Your task to perform on an android device: uninstall "Instagram" Image 0: 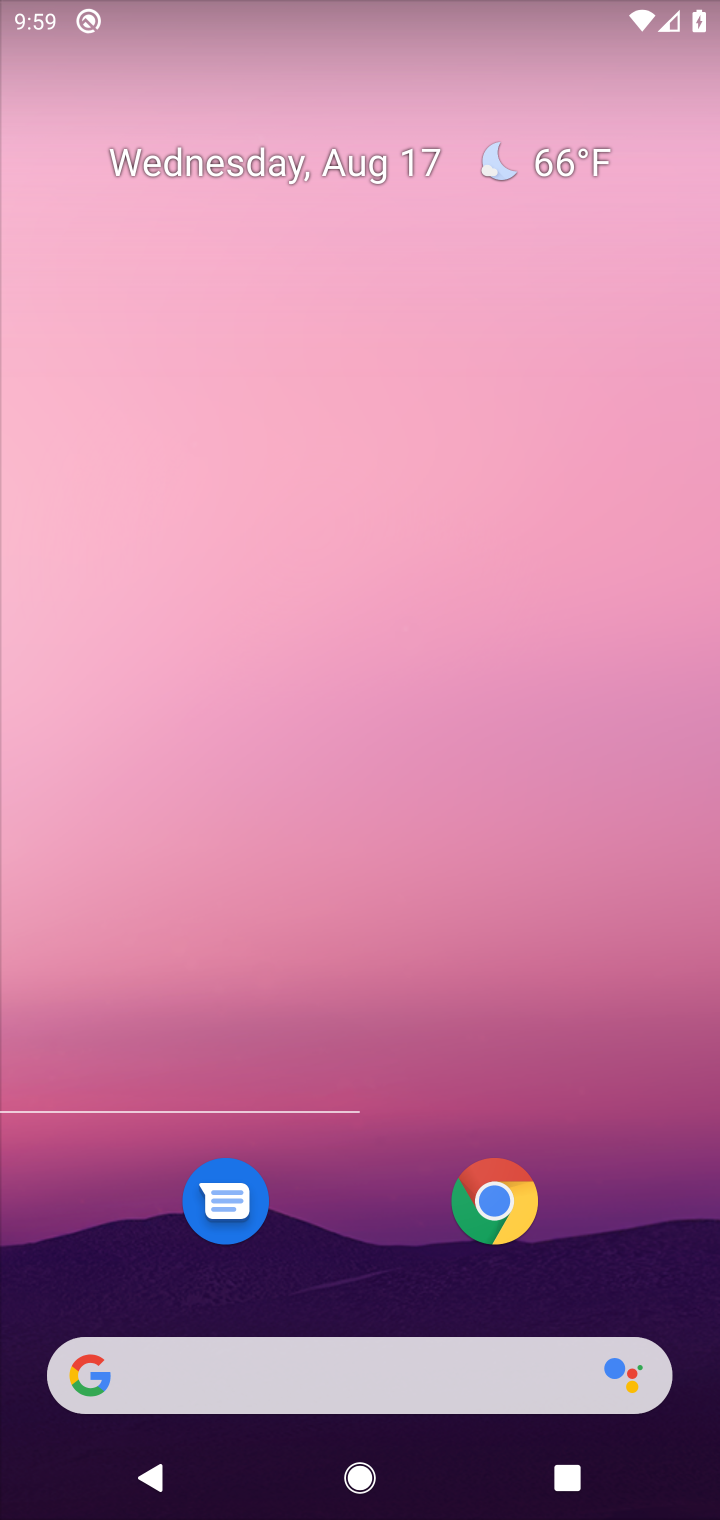
Step 0: press home button
Your task to perform on an android device: uninstall "Instagram" Image 1: 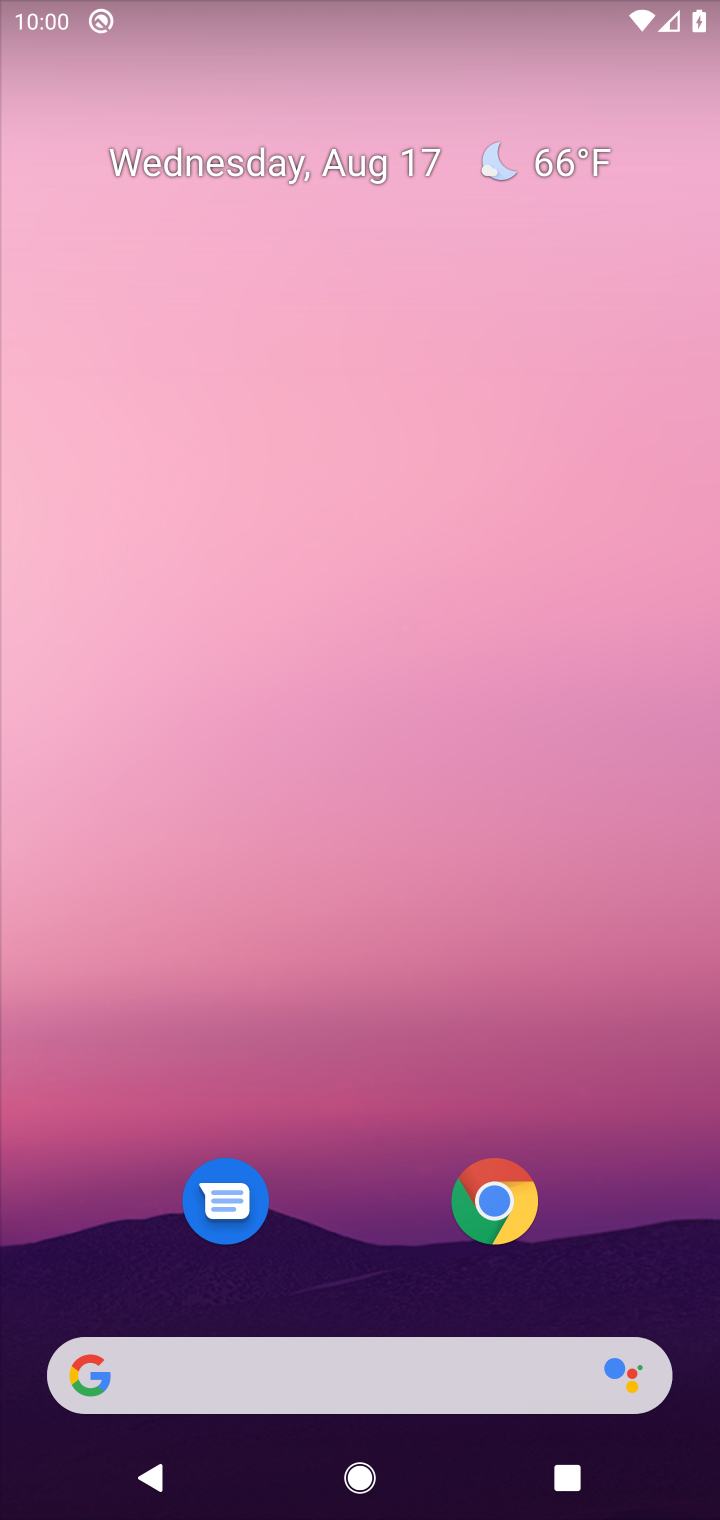
Step 1: press home button
Your task to perform on an android device: uninstall "Instagram" Image 2: 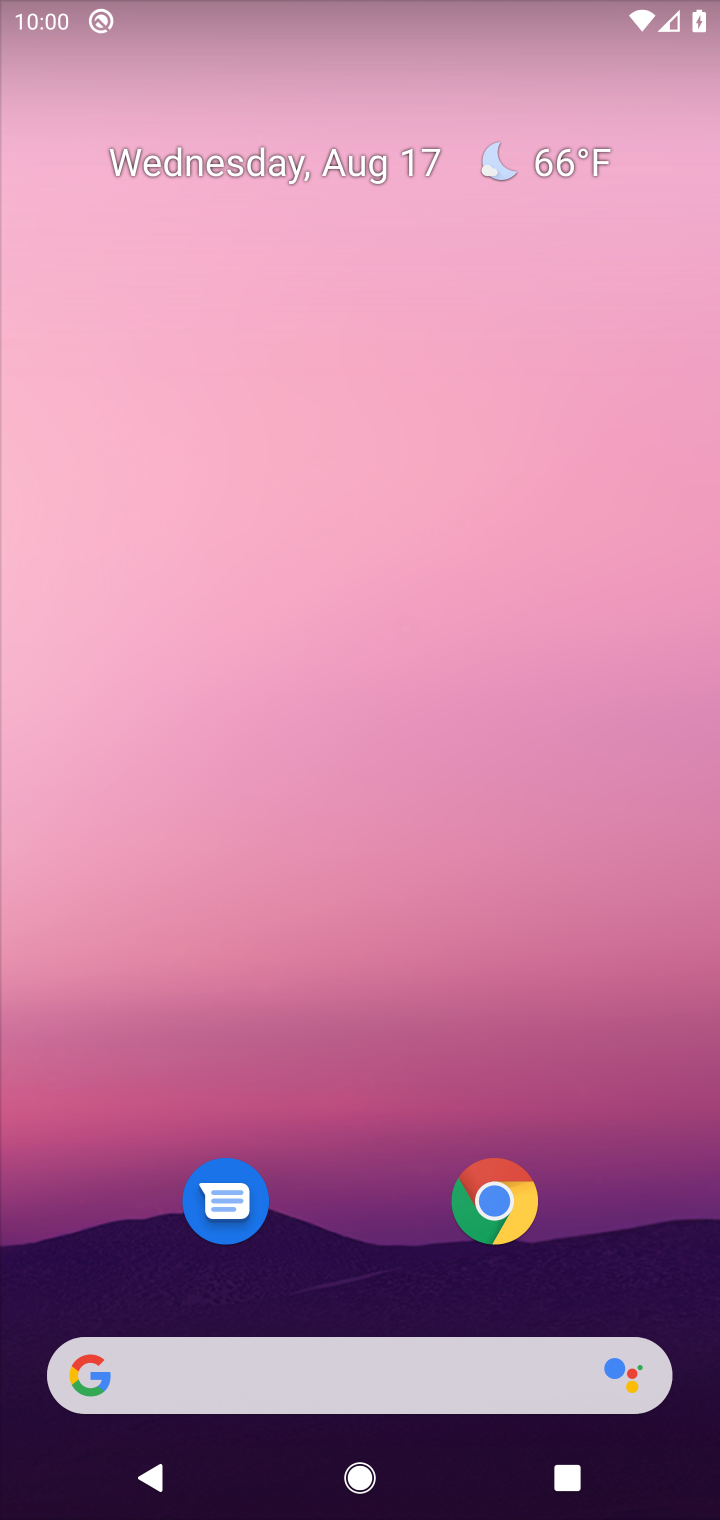
Step 2: drag from (375, 1291) to (321, 256)
Your task to perform on an android device: uninstall "Instagram" Image 3: 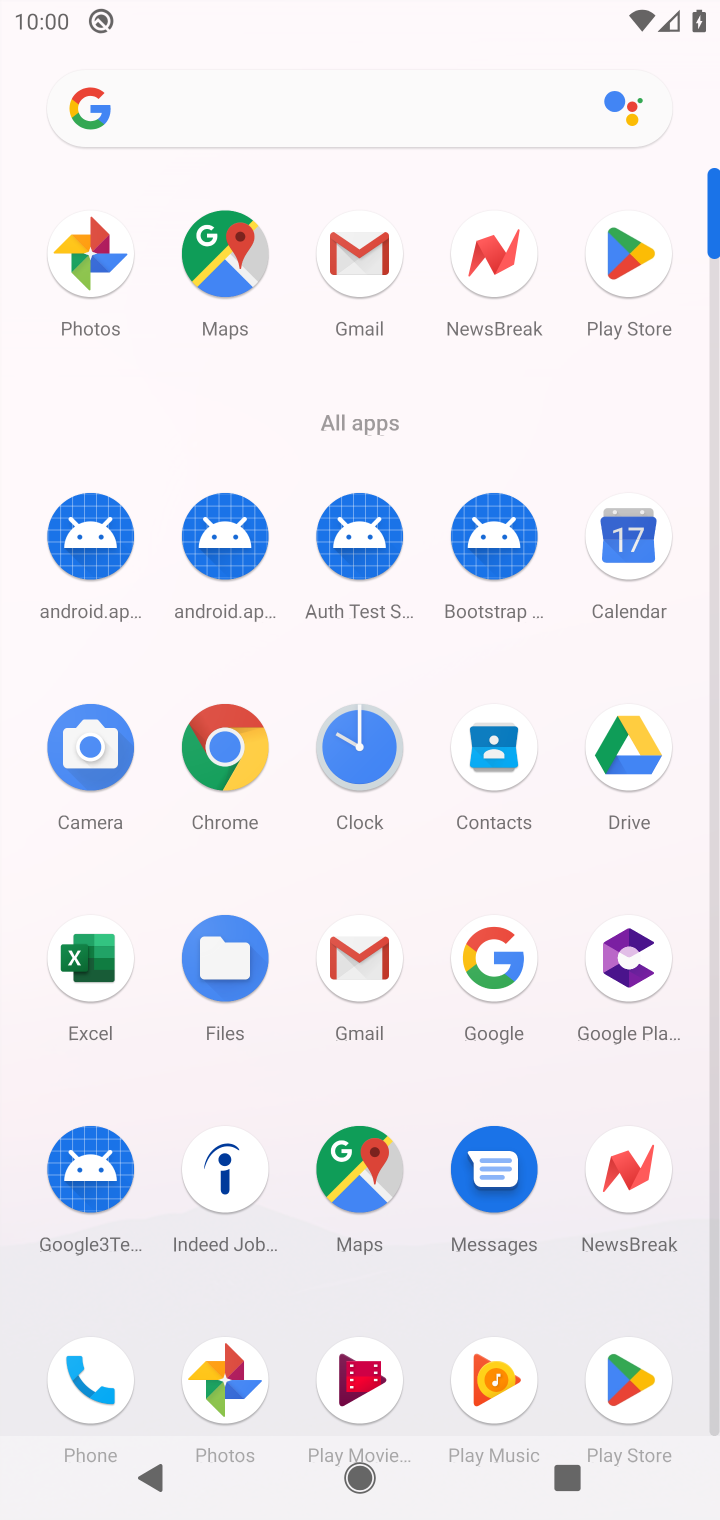
Step 3: click (620, 247)
Your task to perform on an android device: uninstall "Instagram" Image 4: 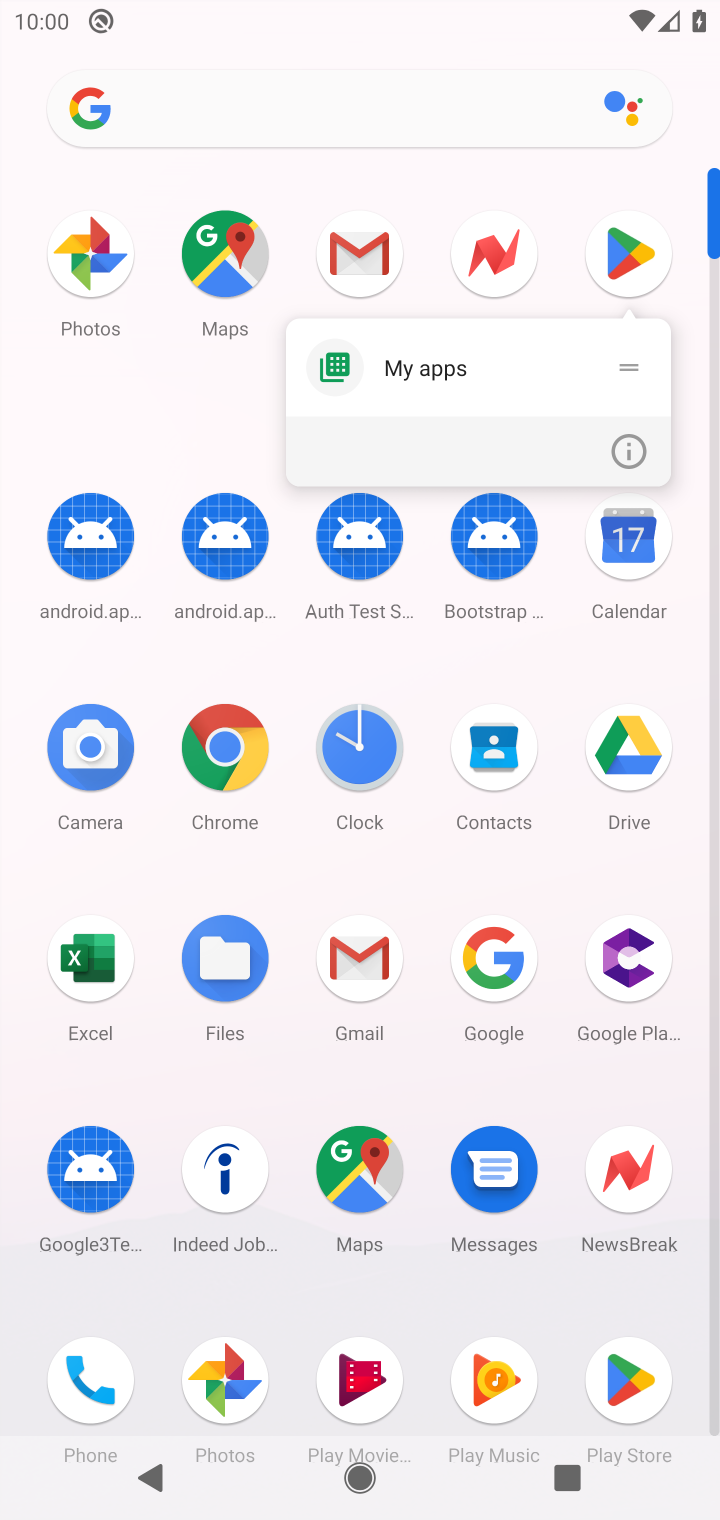
Step 4: click (620, 247)
Your task to perform on an android device: uninstall "Instagram" Image 5: 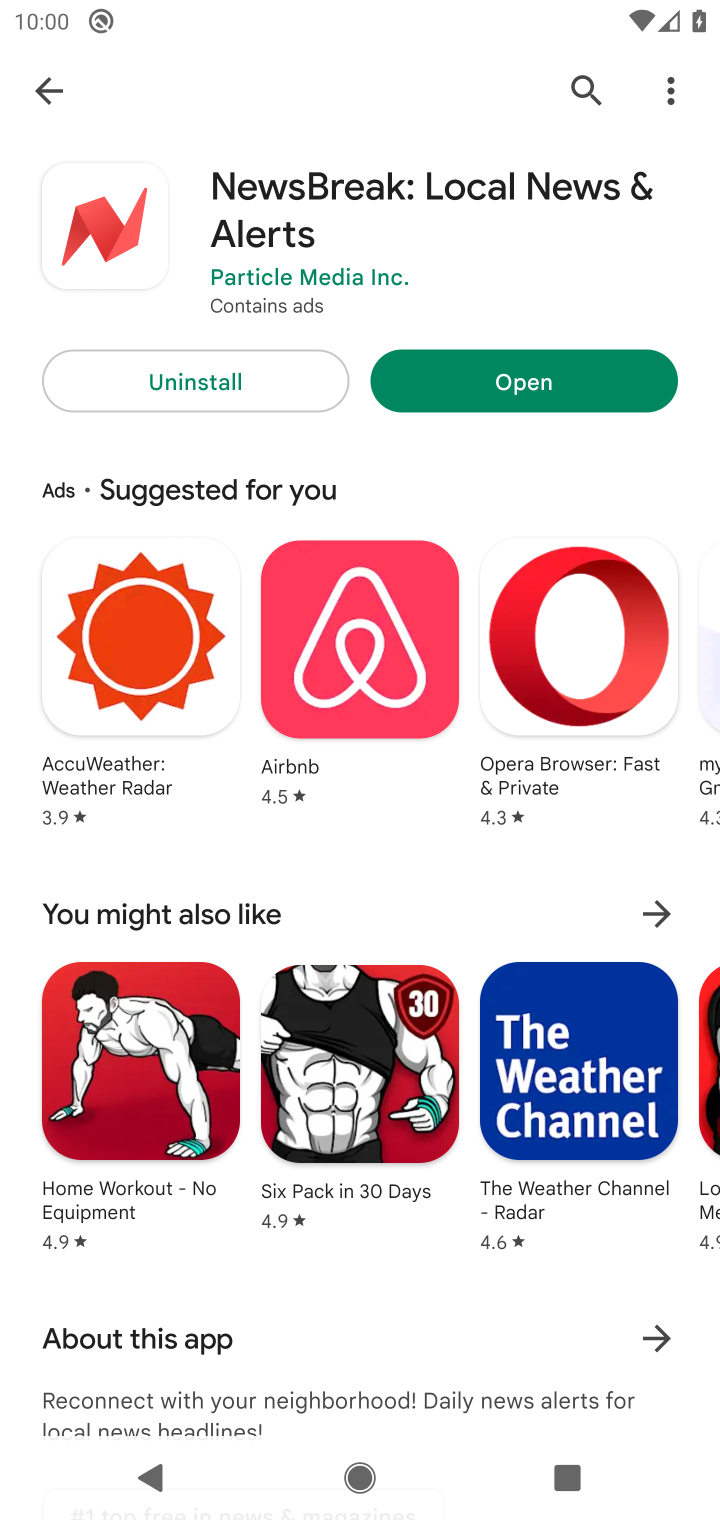
Step 5: click (593, 89)
Your task to perform on an android device: uninstall "Instagram" Image 6: 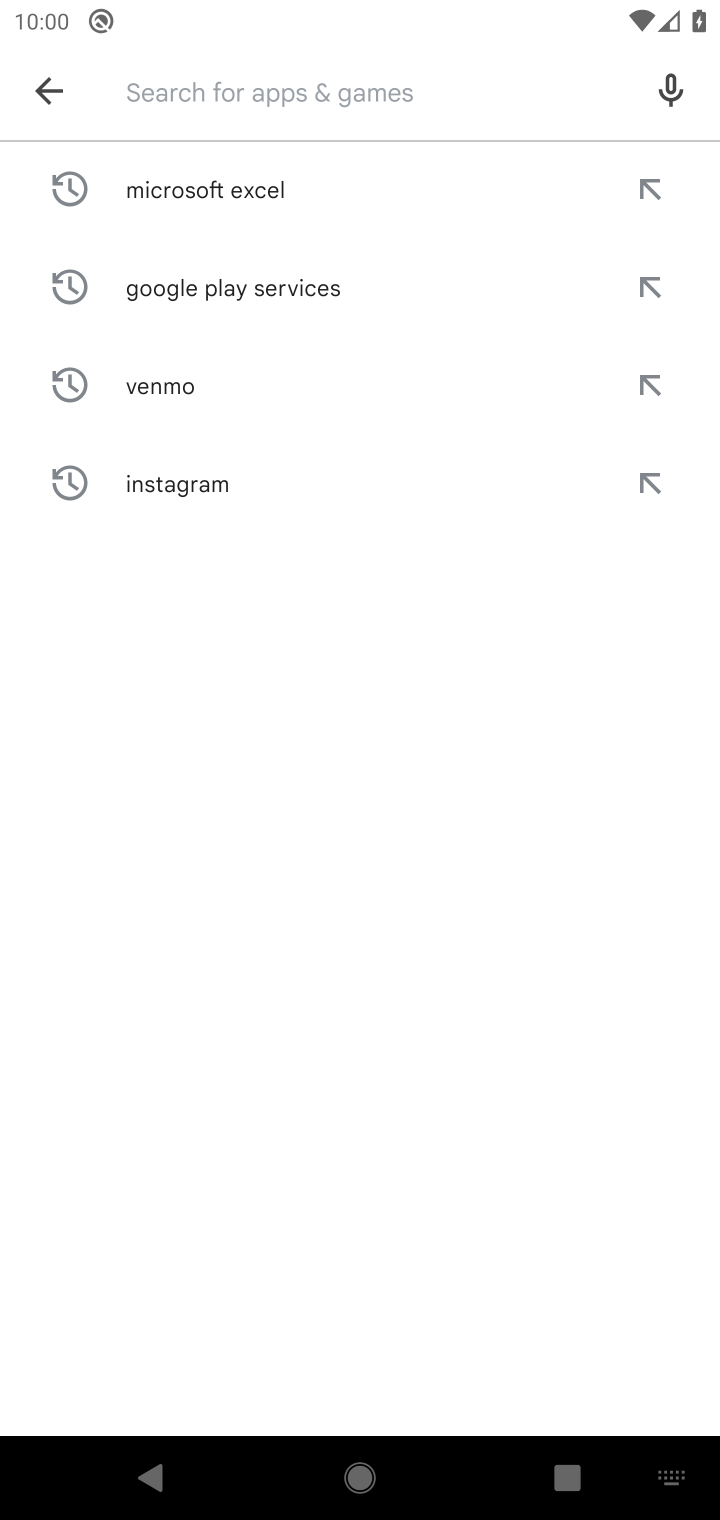
Step 6: click (211, 488)
Your task to perform on an android device: uninstall "Instagram" Image 7: 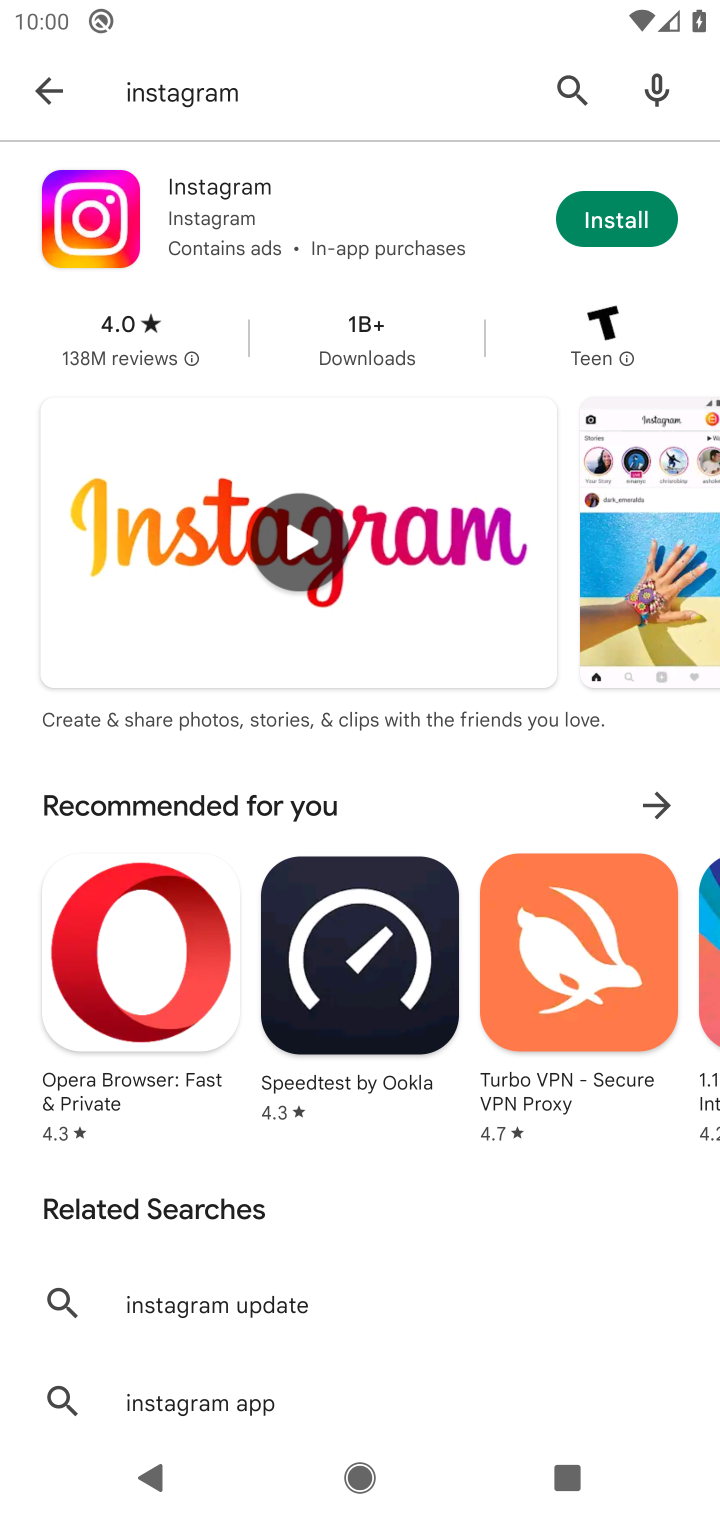
Step 7: click (288, 204)
Your task to perform on an android device: uninstall "Instagram" Image 8: 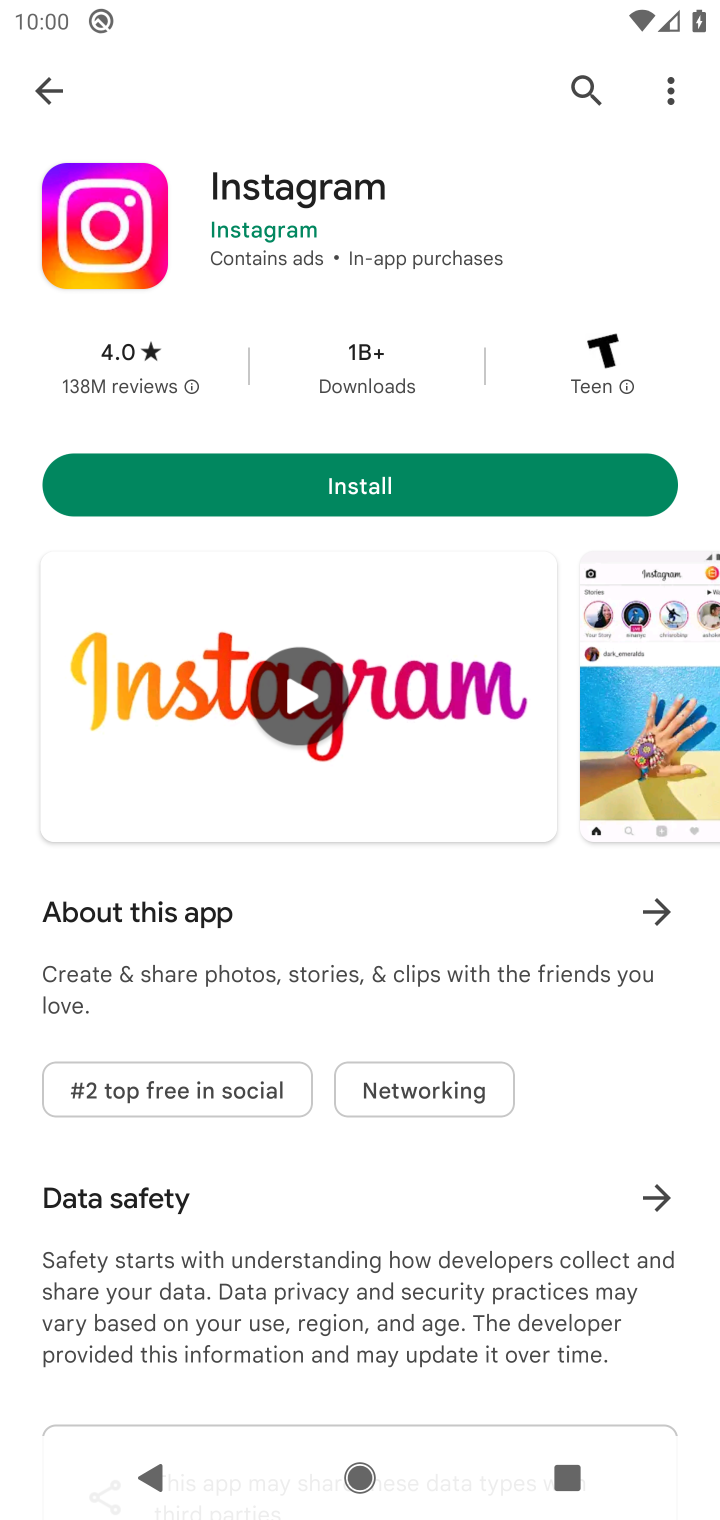
Step 8: task complete